Your task to perform on an android device: Search for the best websites on the internet Image 0: 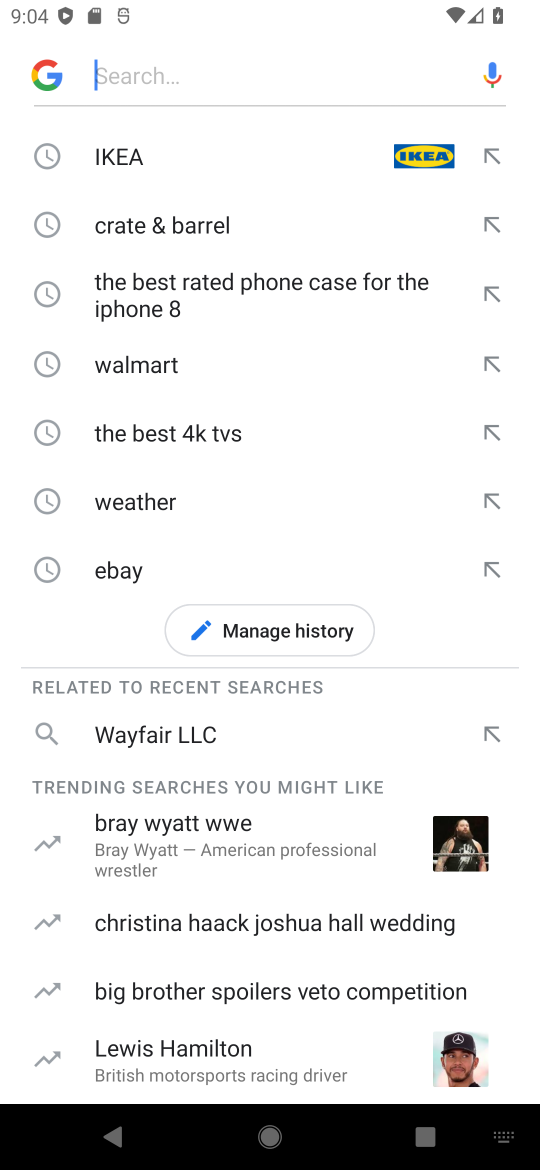
Step 0: press home button
Your task to perform on an android device: Search for the best websites on the internet Image 1: 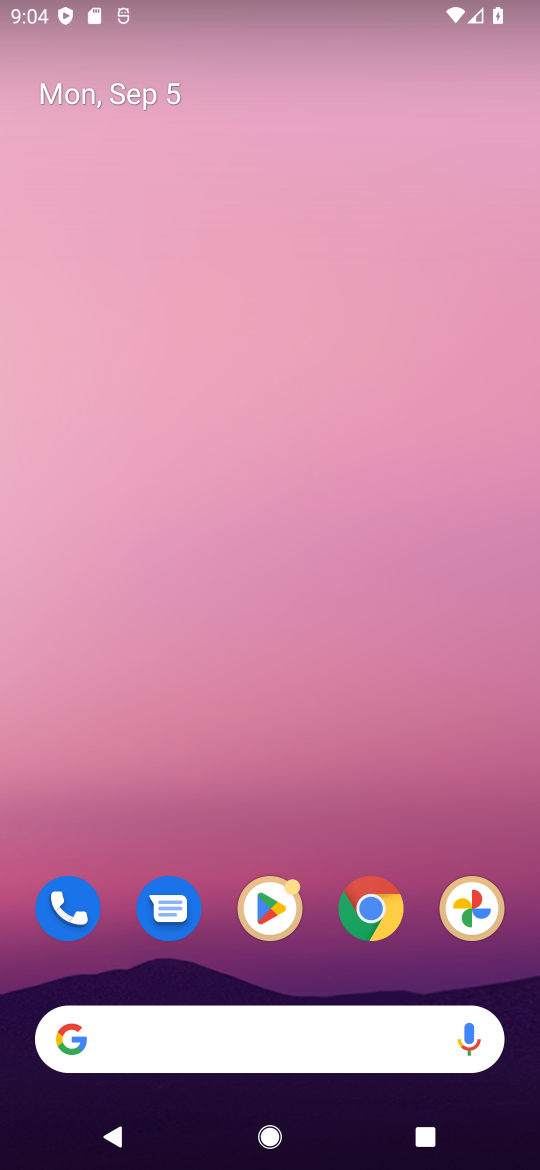
Step 1: drag from (312, 1001) to (275, 166)
Your task to perform on an android device: Search for the best websites on the internet Image 2: 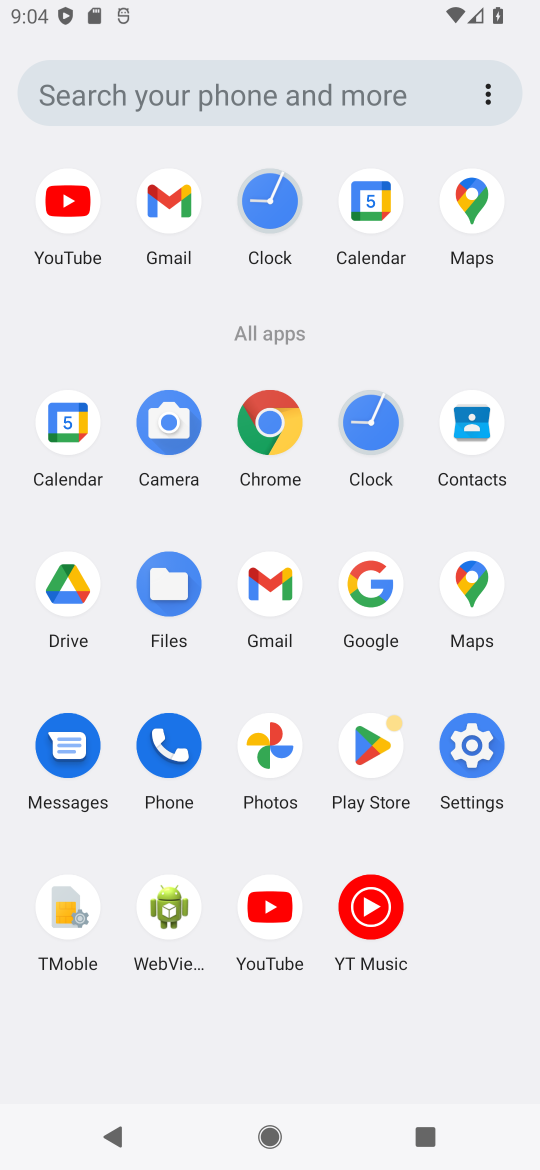
Step 2: click (252, 443)
Your task to perform on an android device: Search for the best websites on the internet Image 3: 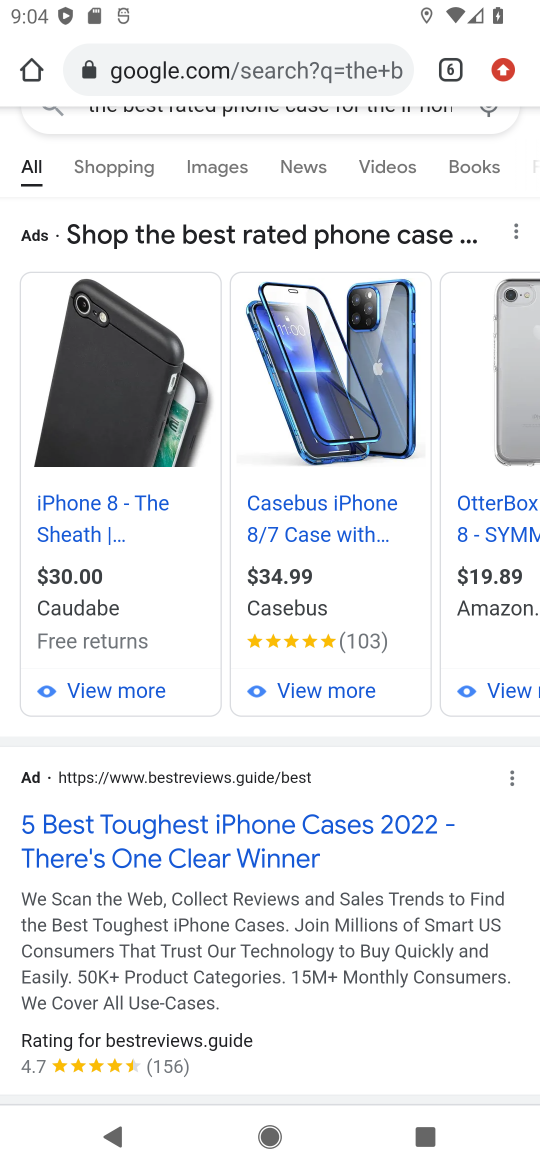
Step 3: click (231, 53)
Your task to perform on an android device: Search for the best websites on the internet Image 4: 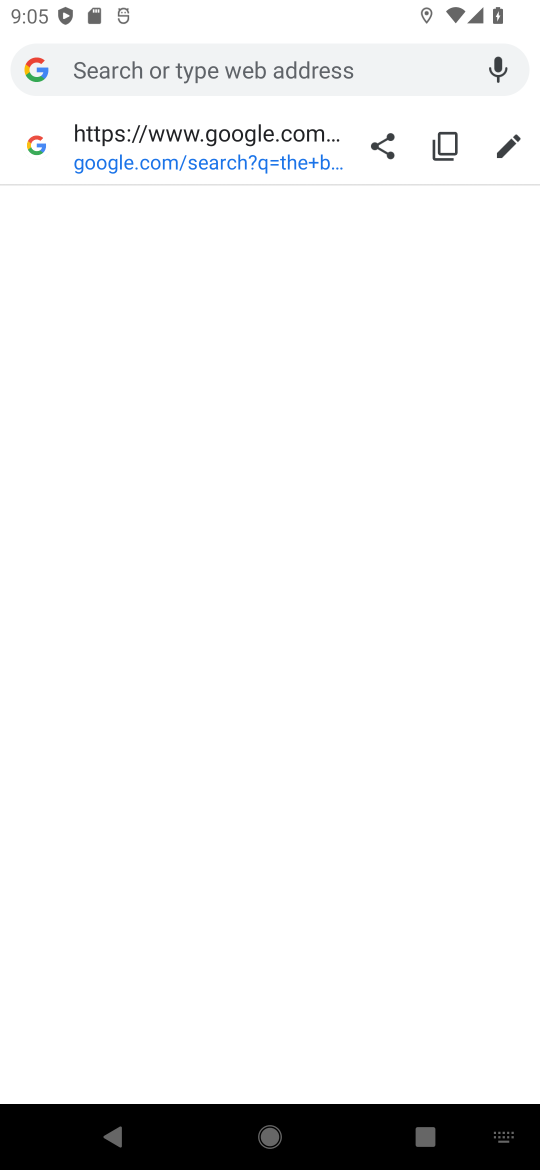
Step 4: type "the best websites on the internet"
Your task to perform on an android device: Search for the best websites on the internet Image 5: 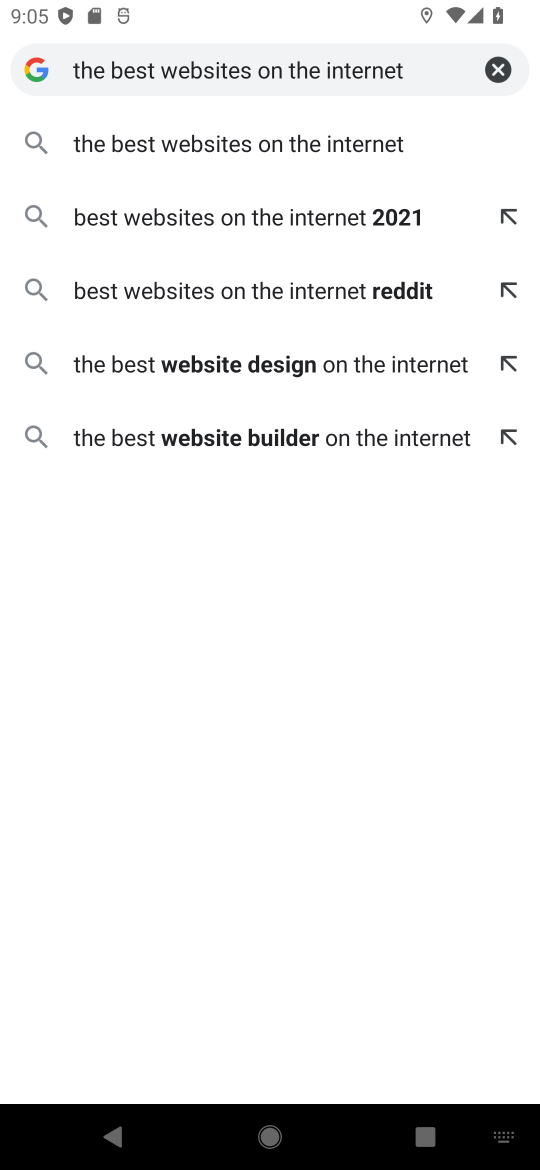
Step 5: click (135, 140)
Your task to perform on an android device: Search for the best websites on the internet Image 6: 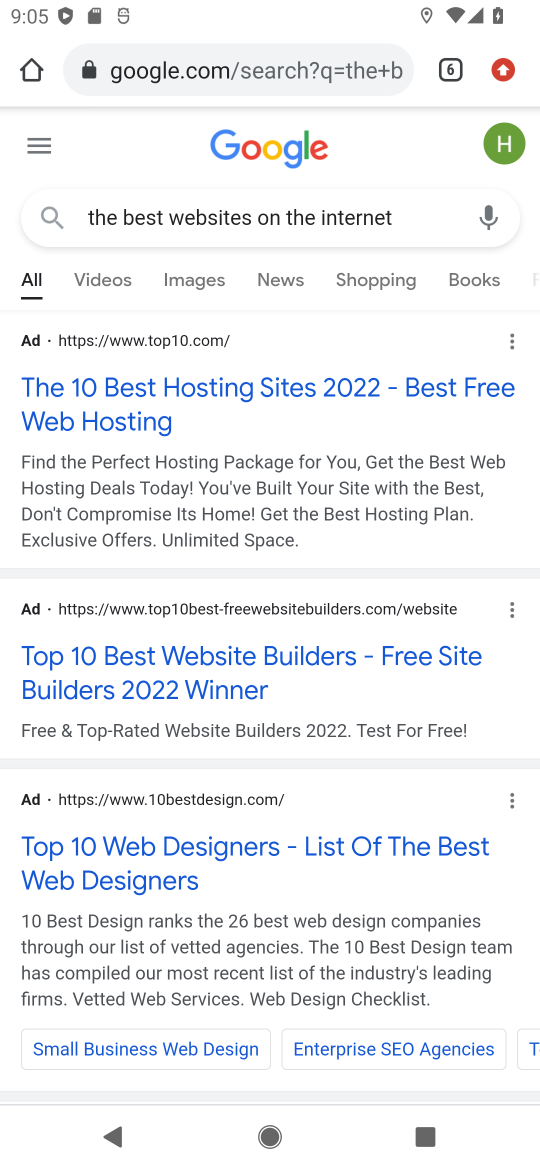
Step 6: click (180, 398)
Your task to perform on an android device: Search for the best websites on the internet Image 7: 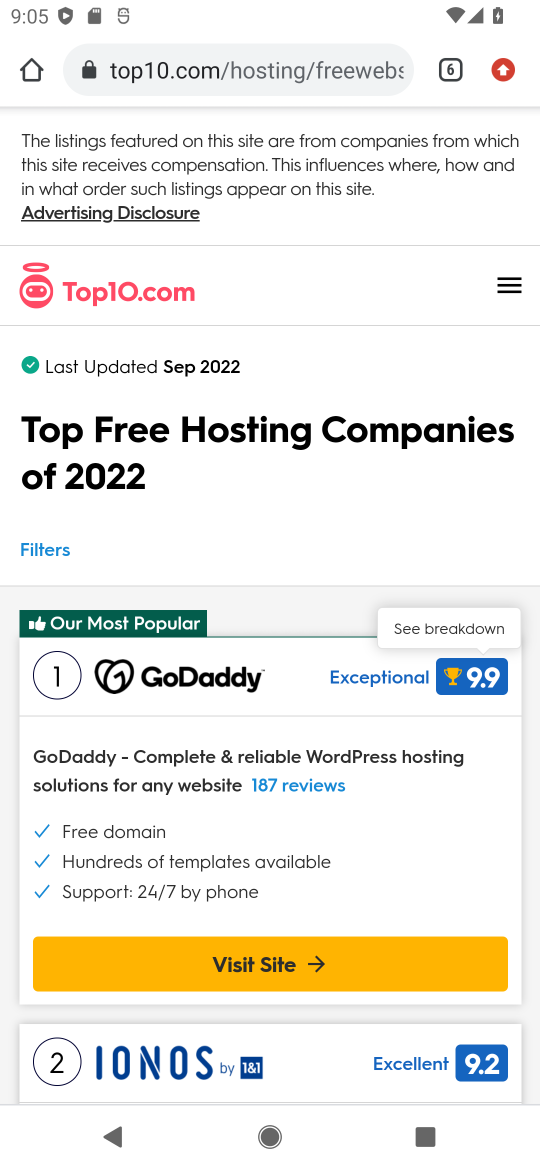
Step 7: task complete